Your task to perform on an android device: Open privacy settings Image 0: 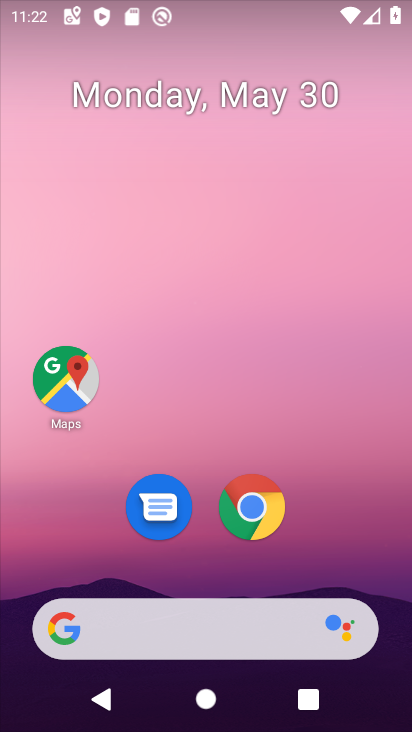
Step 0: drag from (358, 531) to (352, 718)
Your task to perform on an android device: Open privacy settings Image 1: 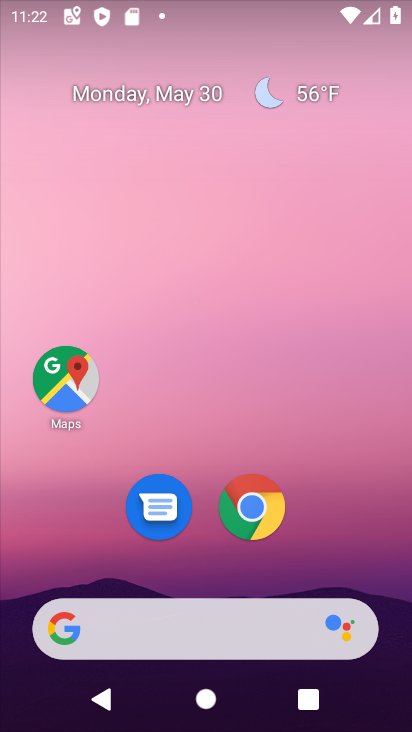
Step 1: drag from (383, 571) to (250, 0)
Your task to perform on an android device: Open privacy settings Image 2: 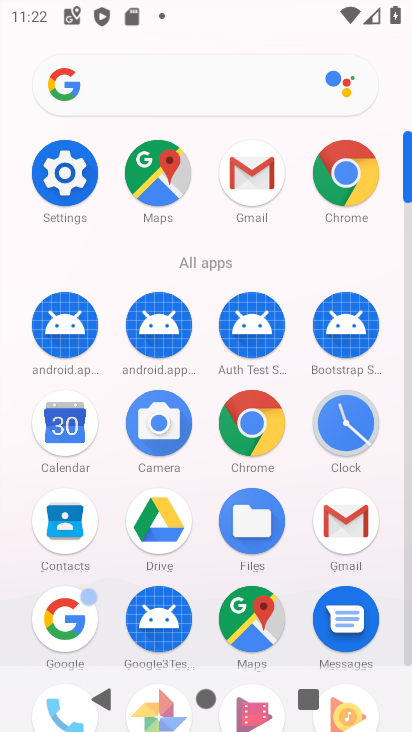
Step 2: click (63, 162)
Your task to perform on an android device: Open privacy settings Image 3: 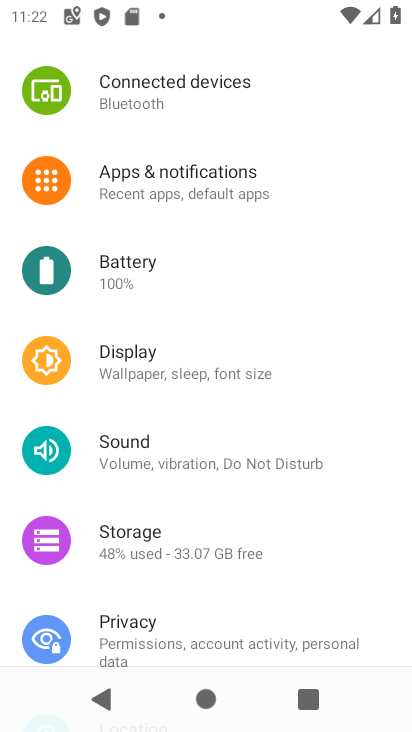
Step 3: click (189, 651)
Your task to perform on an android device: Open privacy settings Image 4: 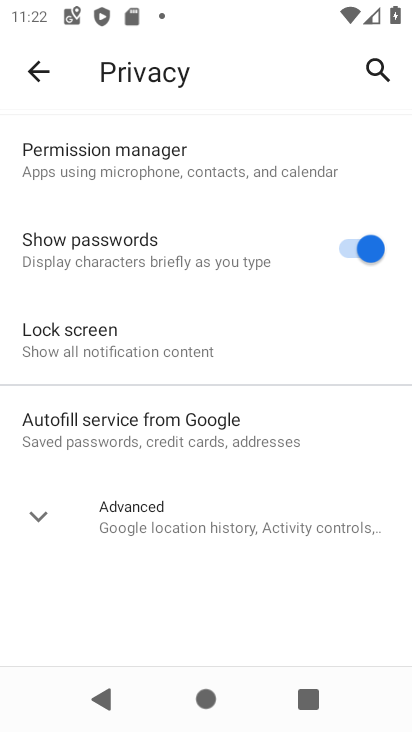
Step 4: task complete